Your task to perform on an android device: Search for the best fantasy books on Goodreads. Image 0: 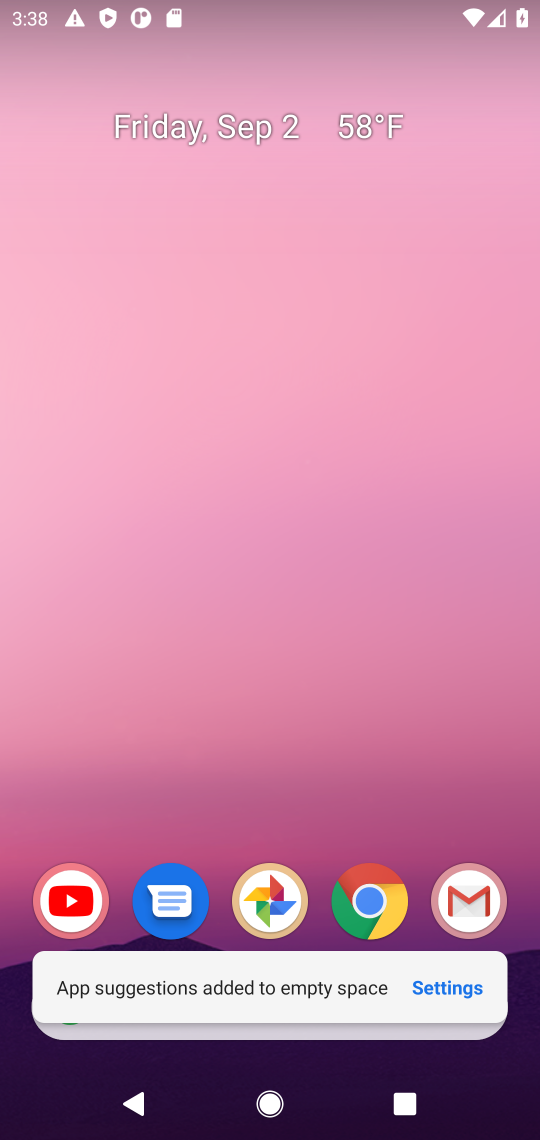
Step 0: click (218, 10)
Your task to perform on an android device: Search for the best fantasy books on Goodreads. Image 1: 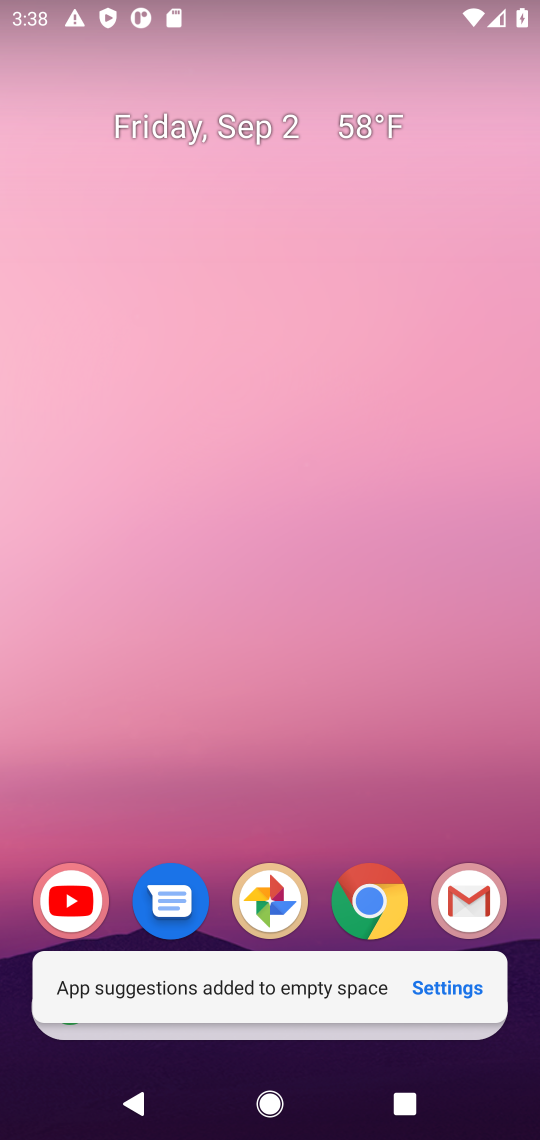
Step 1: drag from (429, 804) to (283, 60)
Your task to perform on an android device: Search for the best fantasy books on Goodreads. Image 2: 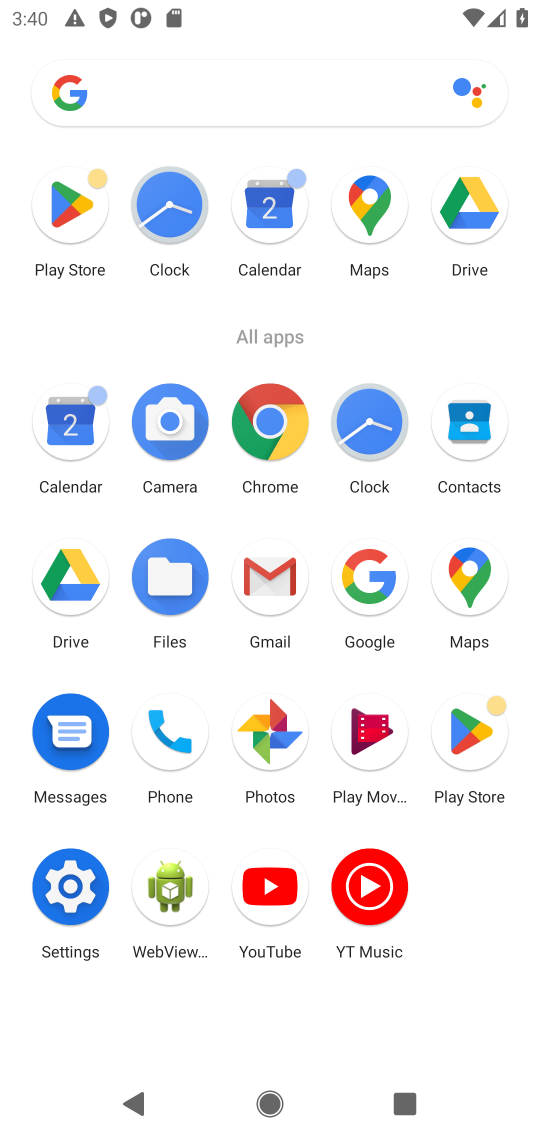
Step 2: click (353, 581)
Your task to perform on an android device: Search for the best fantasy books on Goodreads. Image 3: 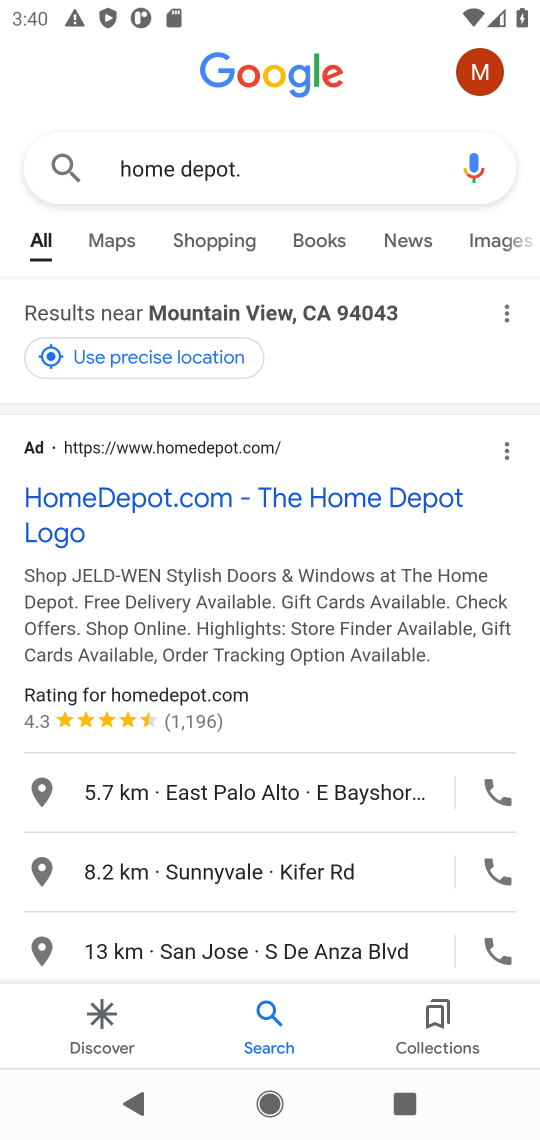
Step 3: press back button
Your task to perform on an android device: Search for the best fantasy books on Goodreads. Image 4: 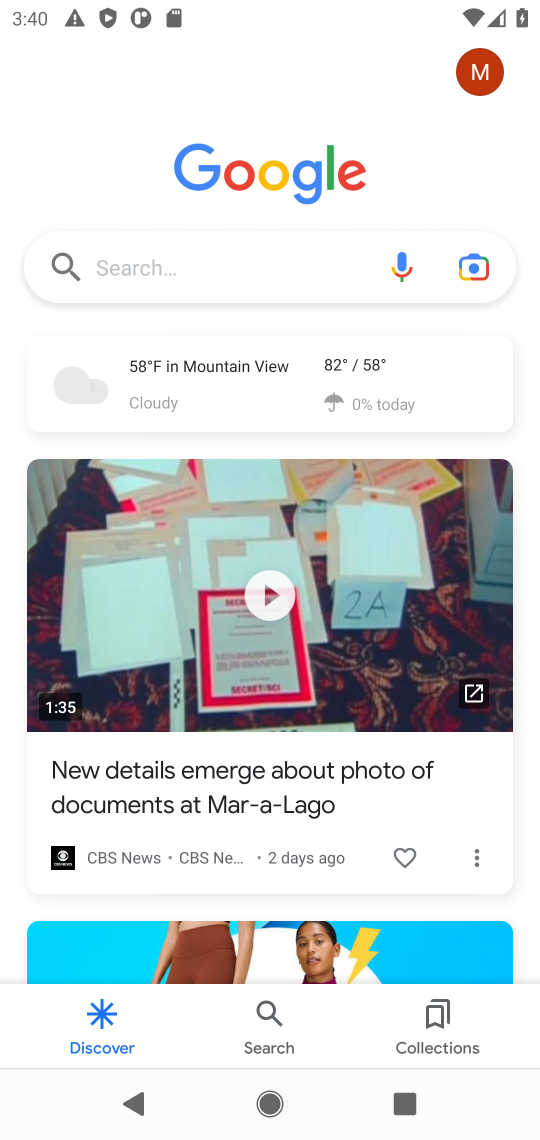
Step 4: click (160, 269)
Your task to perform on an android device: Search for the best fantasy books on Goodreads. Image 5: 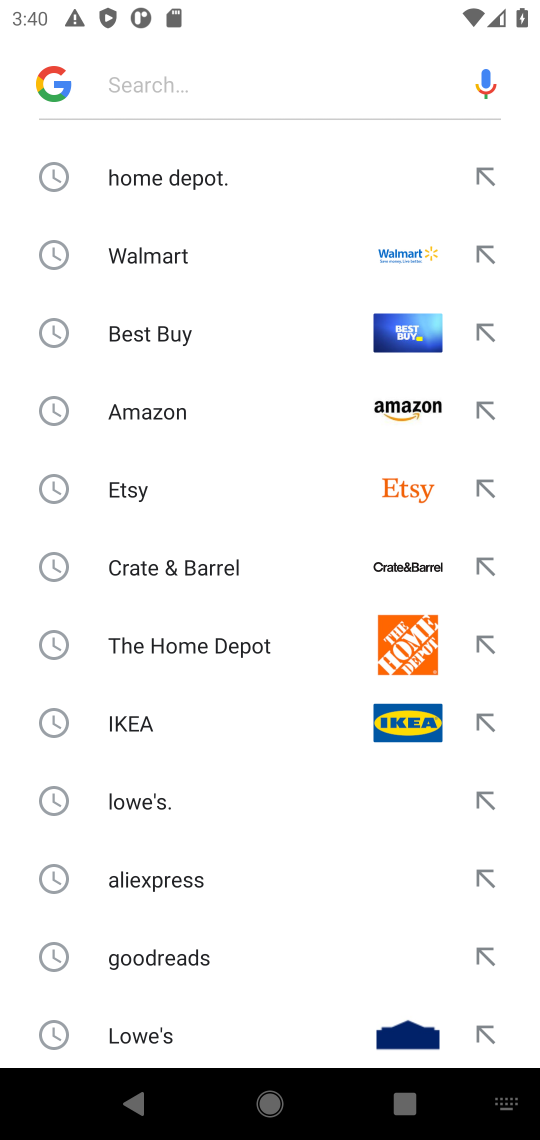
Step 5: click (223, 970)
Your task to perform on an android device: Search for the best fantasy books on Goodreads. Image 6: 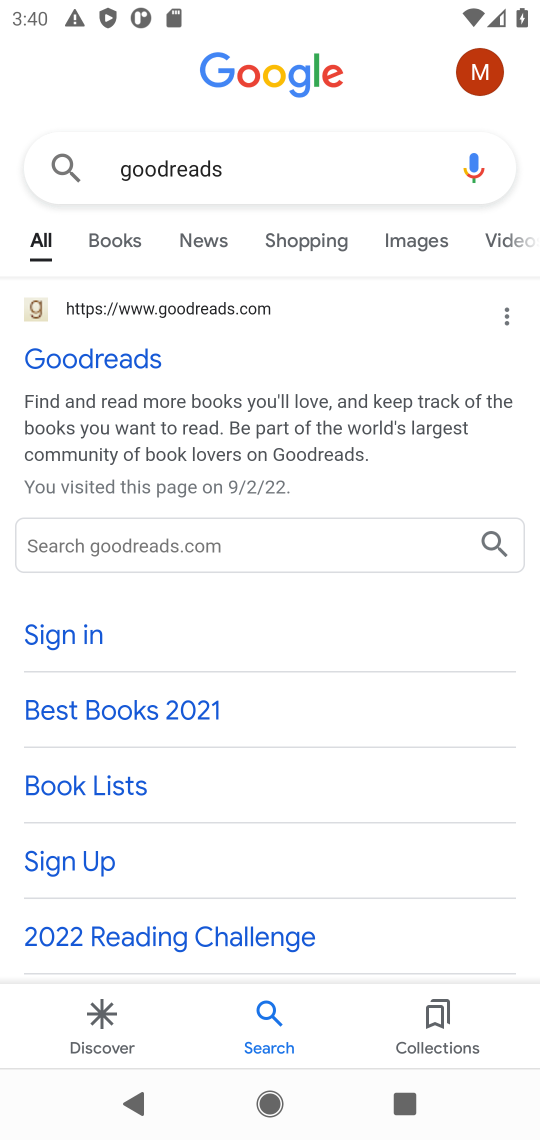
Step 6: click (133, 343)
Your task to perform on an android device: Search for the best fantasy books on Goodreads. Image 7: 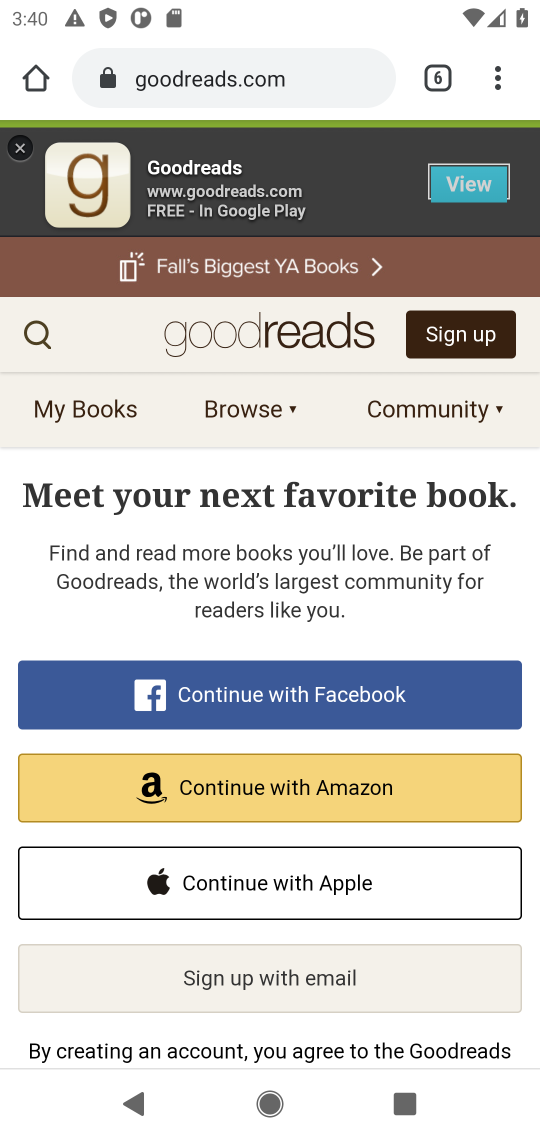
Step 7: task complete